Your task to perform on an android device: Open Chrome and go to settings Image 0: 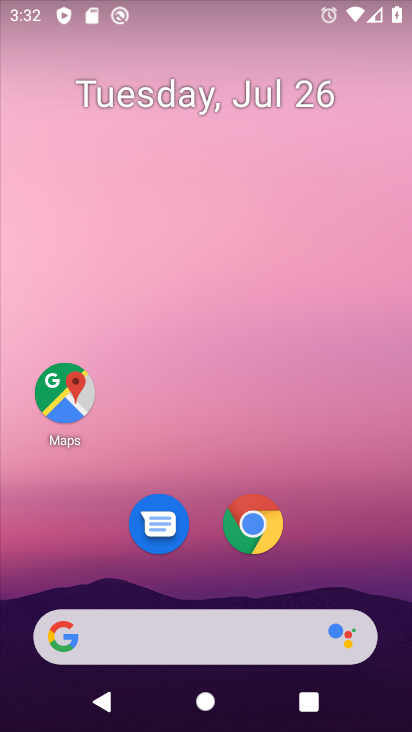
Step 0: click (263, 511)
Your task to perform on an android device: Open Chrome and go to settings Image 1: 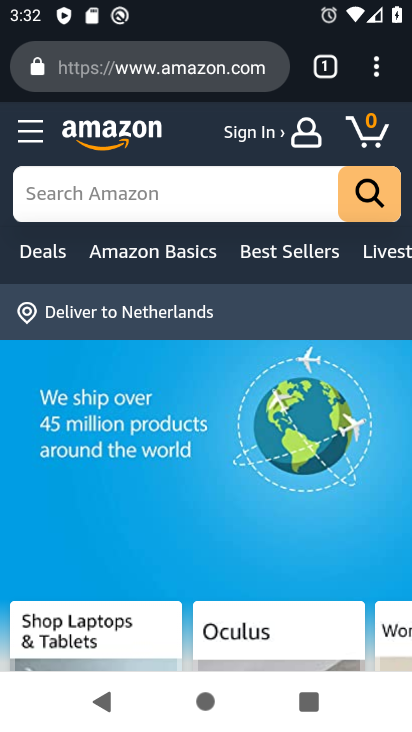
Step 1: click (376, 78)
Your task to perform on an android device: Open Chrome and go to settings Image 2: 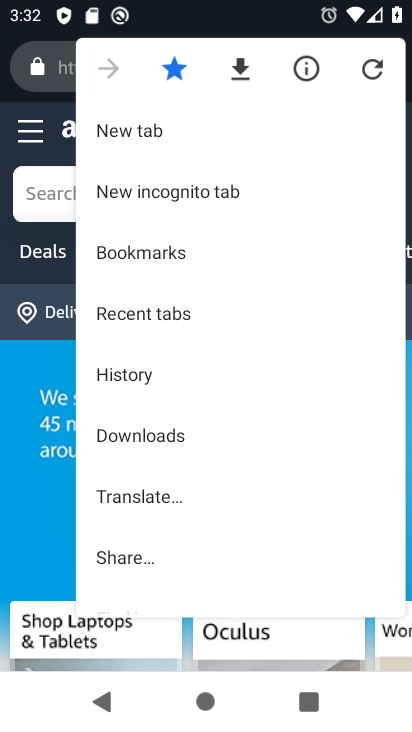
Step 2: drag from (269, 519) to (171, 183)
Your task to perform on an android device: Open Chrome and go to settings Image 3: 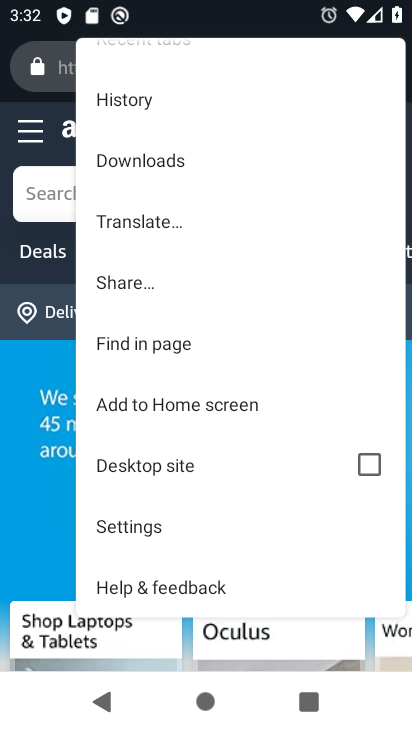
Step 3: click (159, 529)
Your task to perform on an android device: Open Chrome and go to settings Image 4: 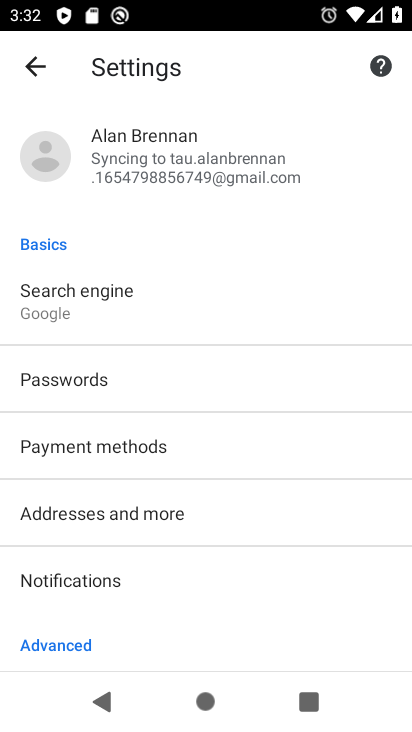
Step 4: task complete